Your task to perform on an android device: Search for vegetarian restaurants on Maps Image 0: 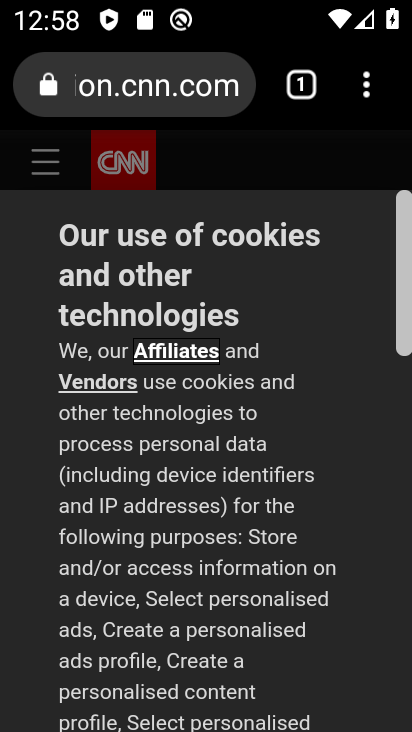
Step 0: press home button
Your task to perform on an android device: Search for vegetarian restaurants on Maps Image 1: 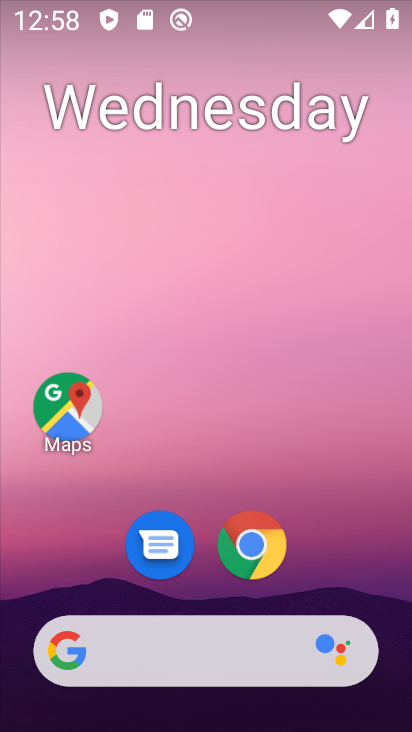
Step 1: click (65, 412)
Your task to perform on an android device: Search for vegetarian restaurants on Maps Image 2: 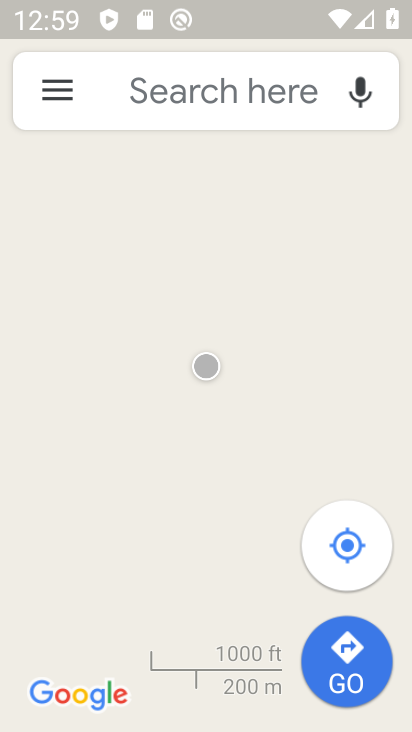
Step 2: click (210, 89)
Your task to perform on an android device: Search for vegetarian restaurants on Maps Image 3: 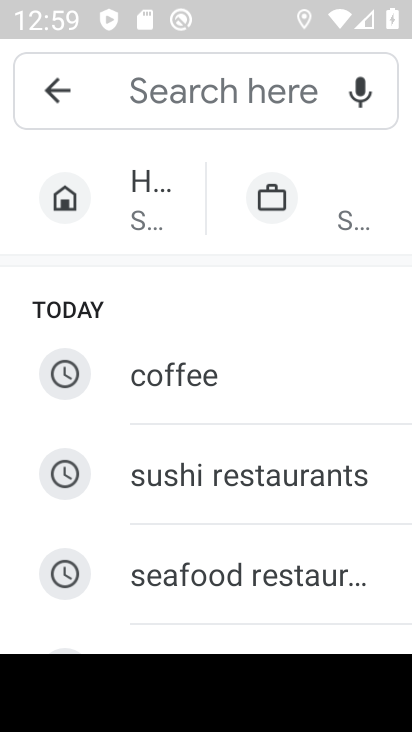
Step 3: type "vegetarian restaurant"
Your task to perform on an android device: Search for vegetarian restaurants on Maps Image 4: 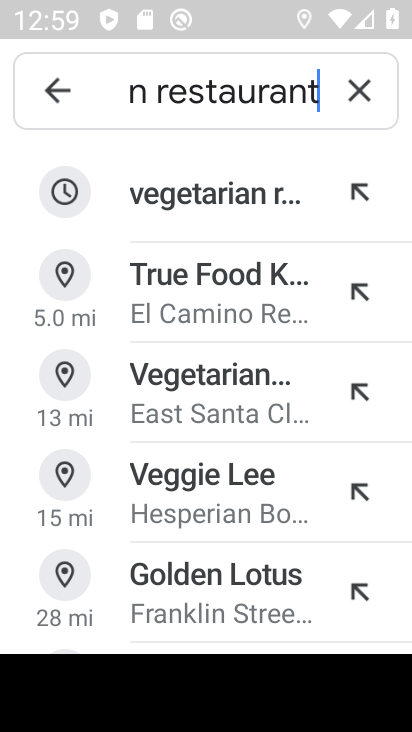
Step 4: click (232, 204)
Your task to perform on an android device: Search for vegetarian restaurants on Maps Image 5: 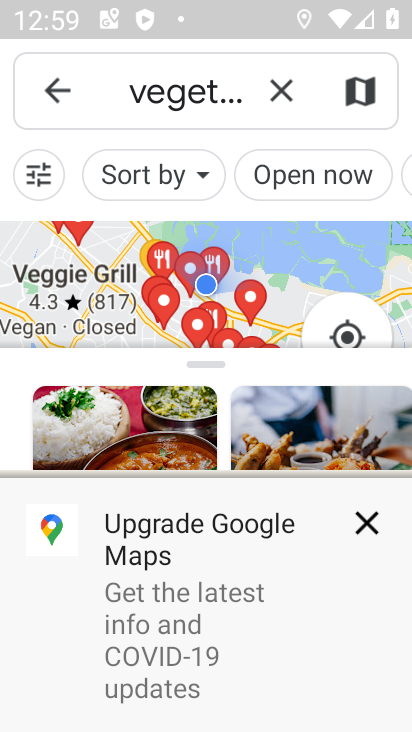
Step 5: task complete